Your task to perform on an android device: Open my contact list Image 0: 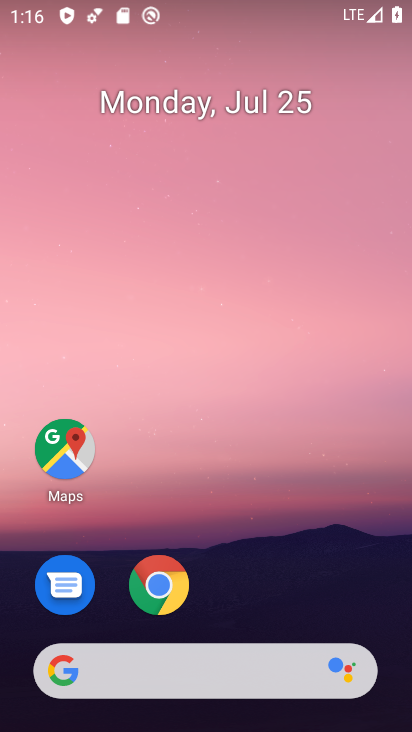
Step 0: drag from (232, 682) to (240, 43)
Your task to perform on an android device: Open my contact list Image 1: 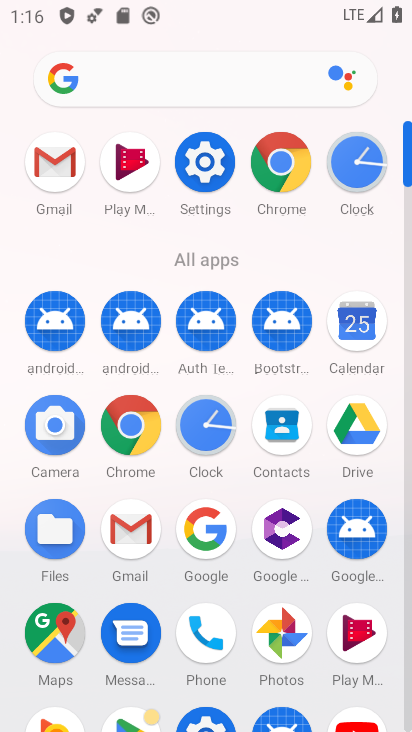
Step 1: click (273, 441)
Your task to perform on an android device: Open my contact list Image 2: 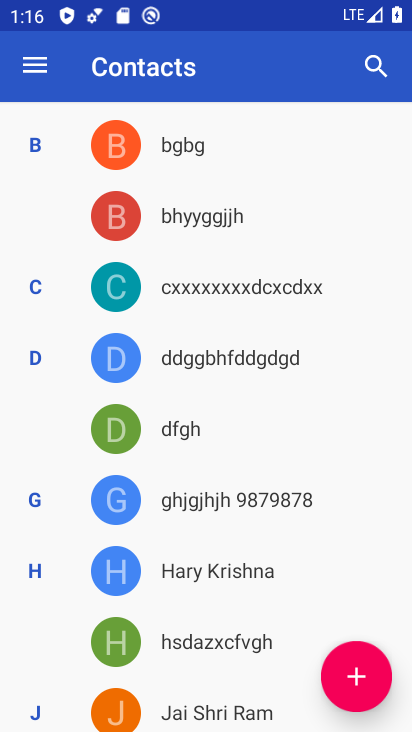
Step 2: task complete